Your task to perform on an android device: Go to location settings Image 0: 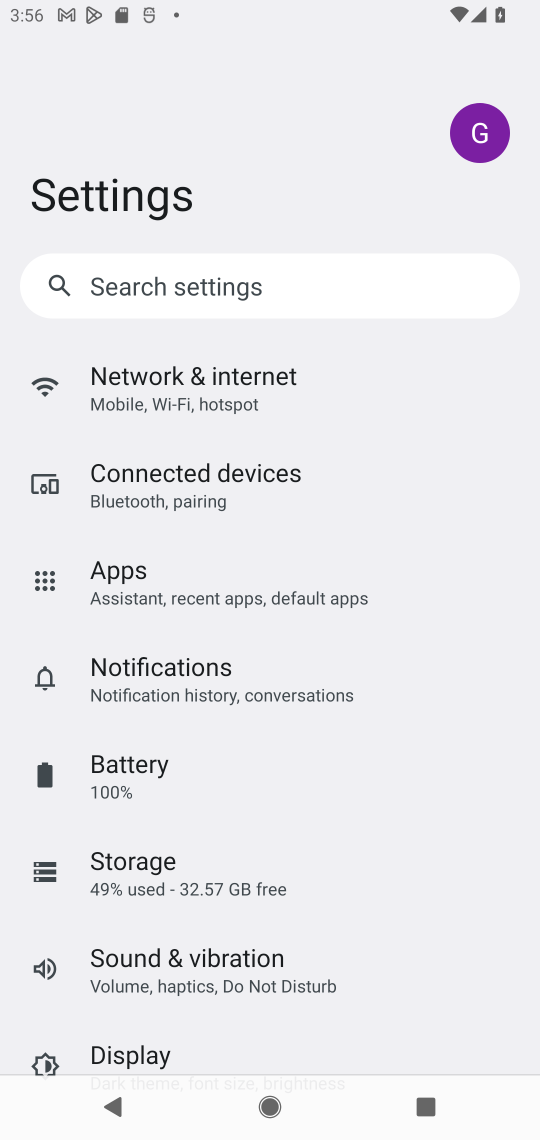
Step 0: drag from (342, 948) to (346, 431)
Your task to perform on an android device: Go to location settings Image 1: 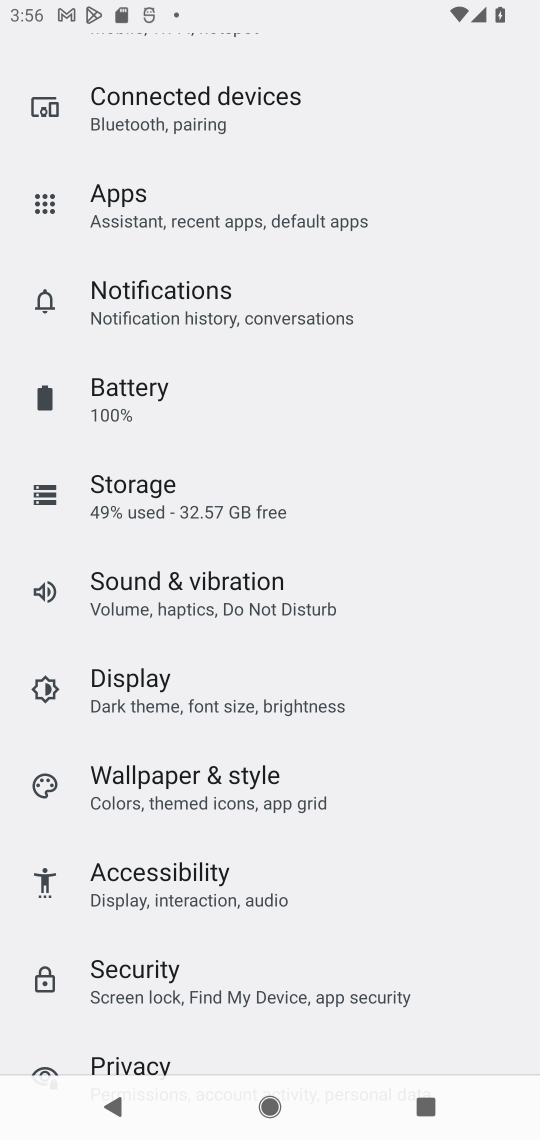
Step 1: drag from (179, 1019) to (214, 590)
Your task to perform on an android device: Go to location settings Image 2: 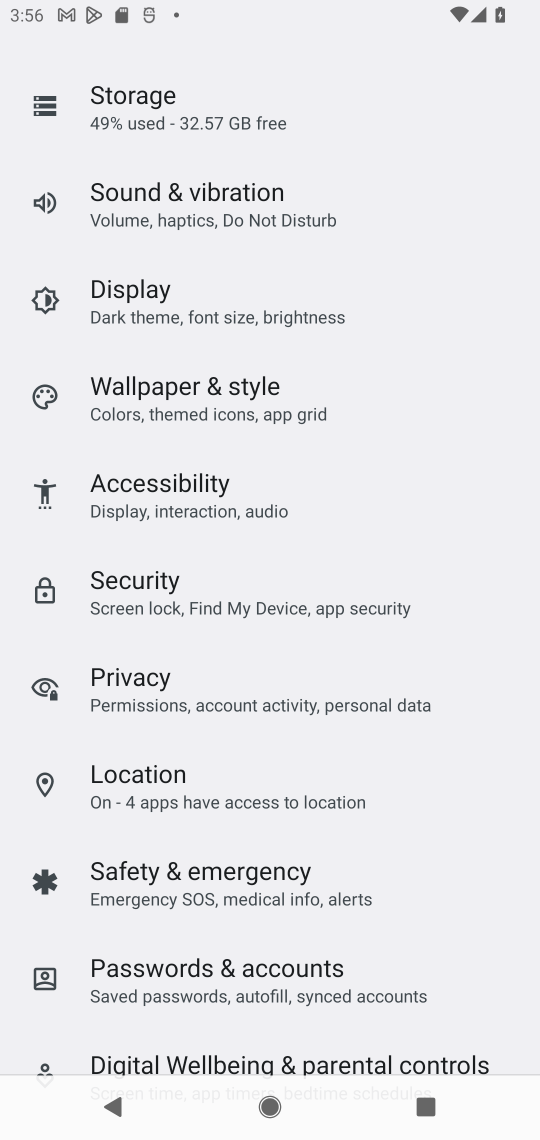
Step 2: click (249, 936)
Your task to perform on an android device: Go to location settings Image 3: 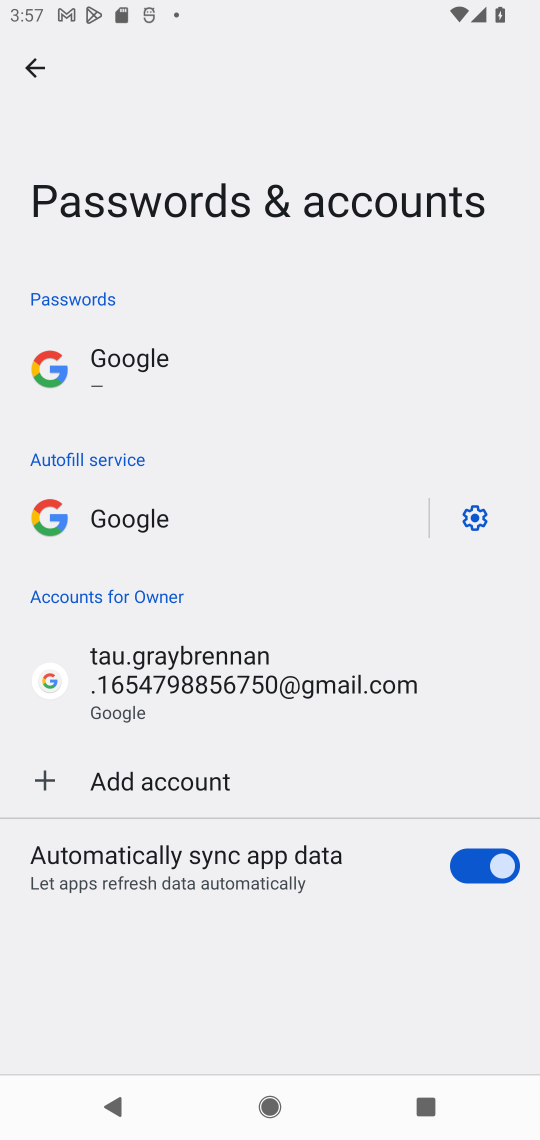
Step 3: task complete